Your task to perform on an android device: turn on javascript in the chrome app Image 0: 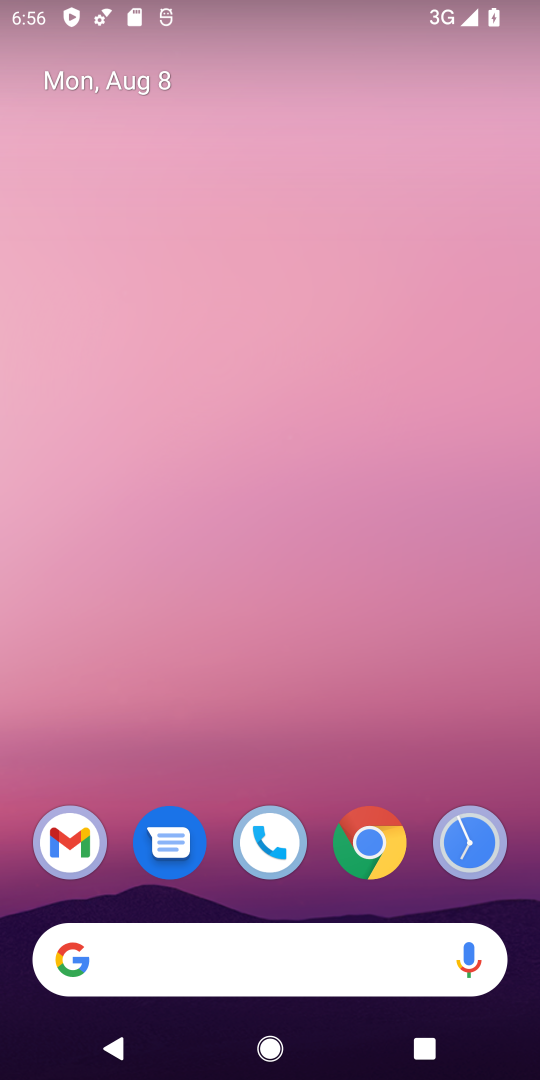
Step 0: click (357, 849)
Your task to perform on an android device: turn on javascript in the chrome app Image 1: 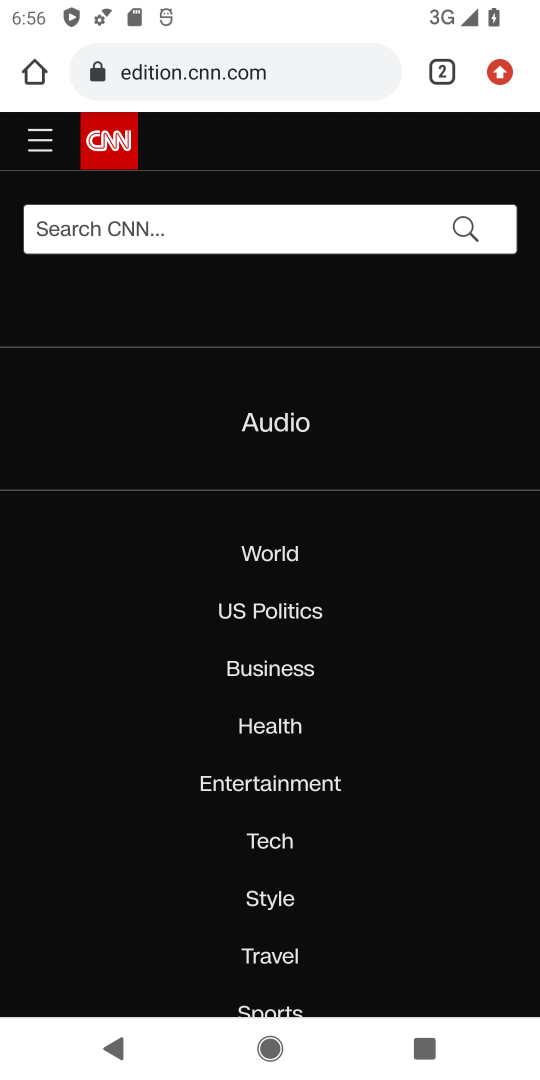
Step 1: drag from (508, 81) to (274, 857)
Your task to perform on an android device: turn on javascript in the chrome app Image 2: 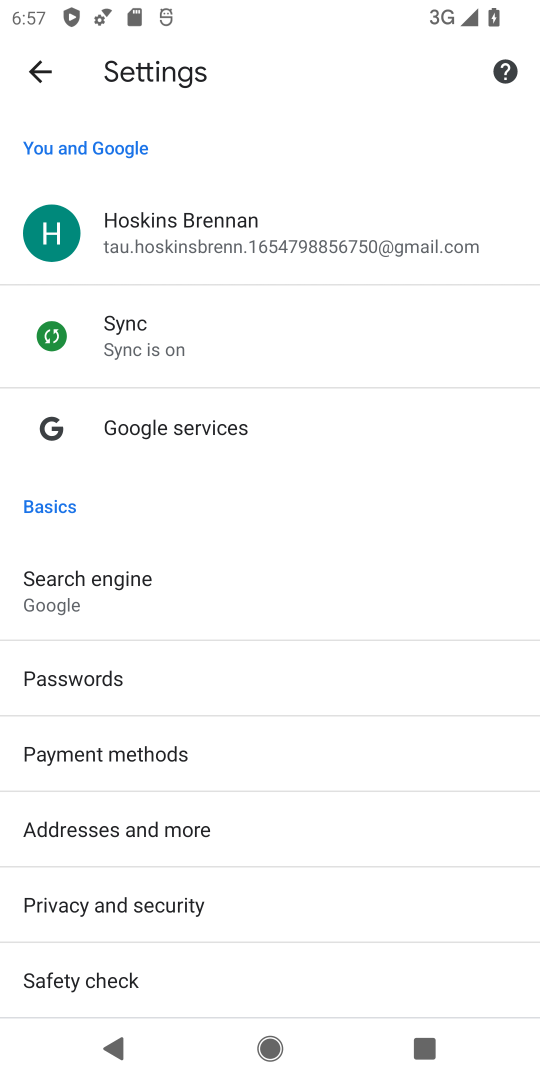
Step 2: click (83, 913)
Your task to perform on an android device: turn on javascript in the chrome app Image 3: 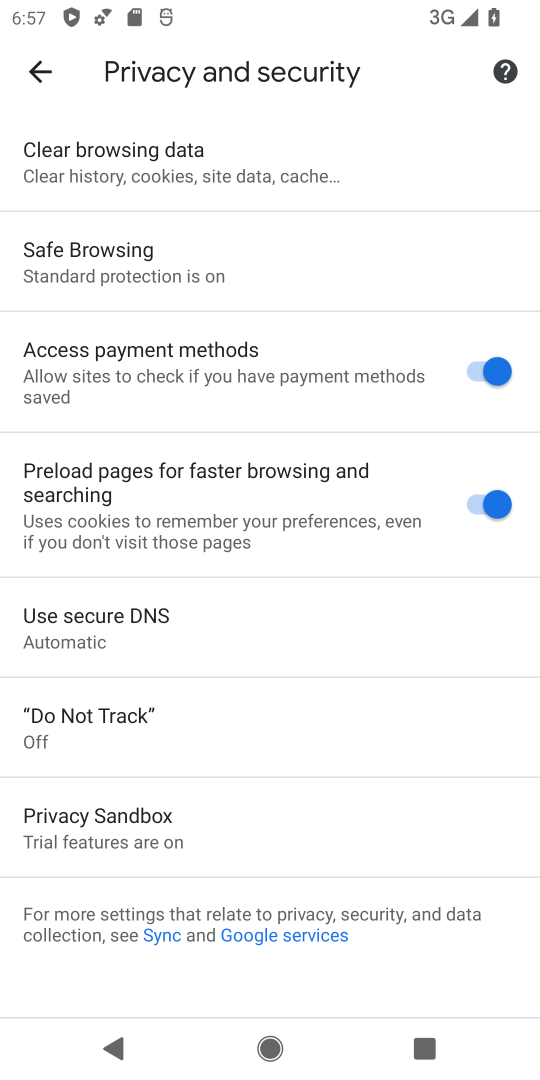
Step 3: click (33, 75)
Your task to perform on an android device: turn on javascript in the chrome app Image 4: 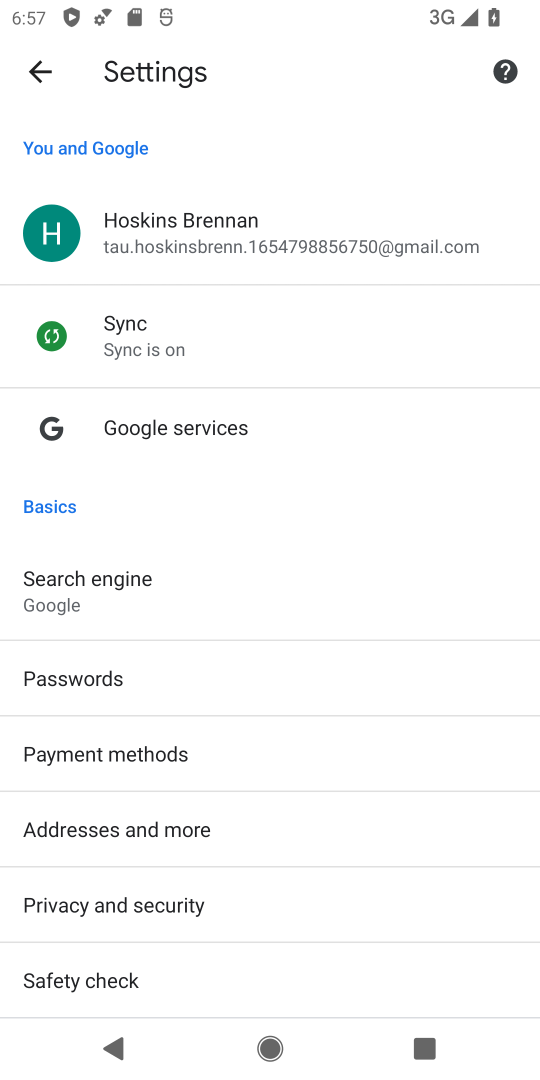
Step 4: drag from (131, 827) to (50, 163)
Your task to perform on an android device: turn on javascript in the chrome app Image 5: 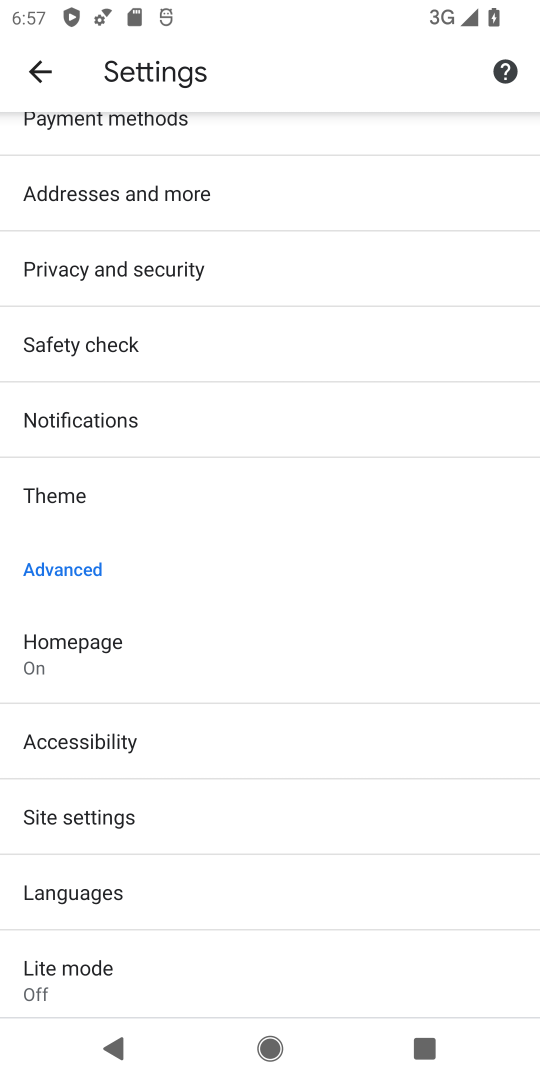
Step 5: click (123, 802)
Your task to perform on an android device: turn on javascript in the chrome app Image 6: 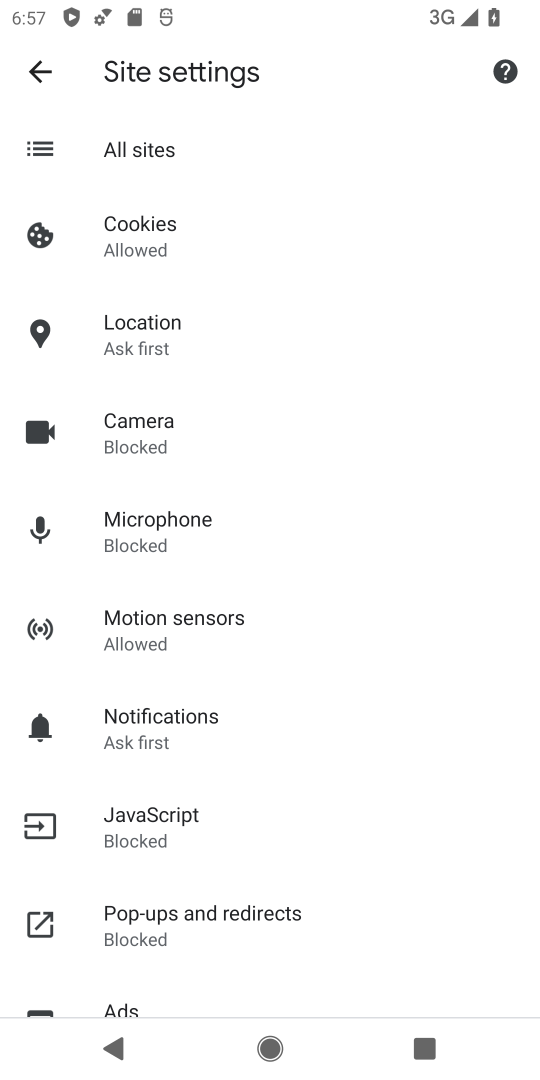
Step 6: click (143, 859)
Your task to perform on an android device: turn on javascript in the chrome app Image 7: 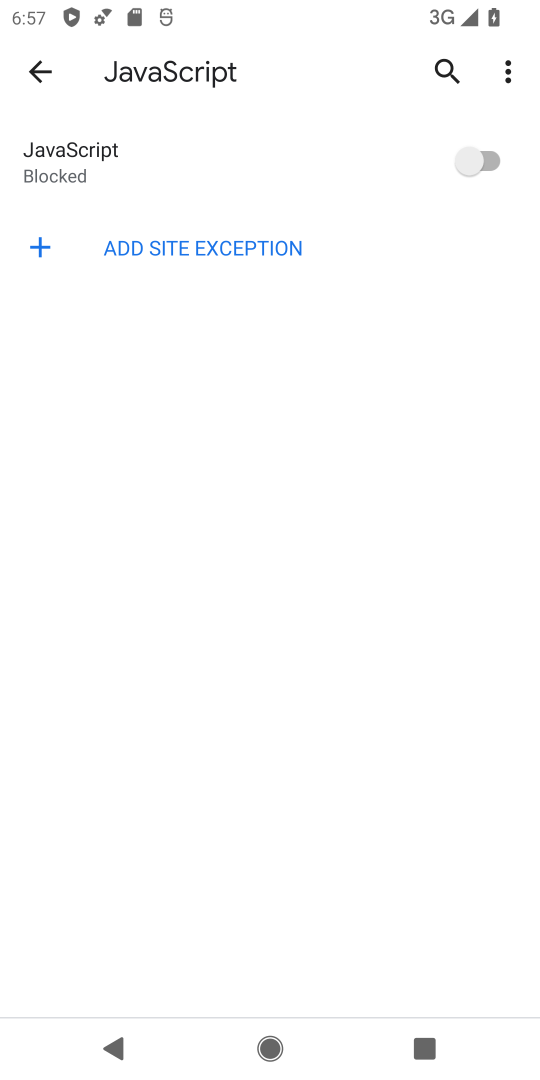
Step 7: click (463, 154)
Your task to perform on an android device: turn on javascript in the chrome app Image 8: 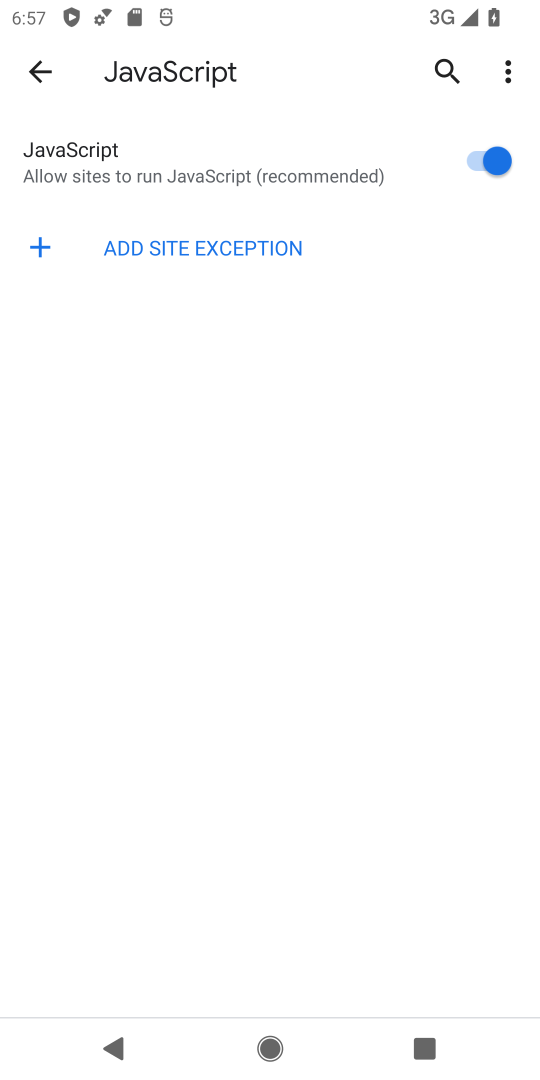
Step 8: task complete